Your task to perform on an android device: Open the calendar app, open the side menu, and click the "Day" option Image 0: 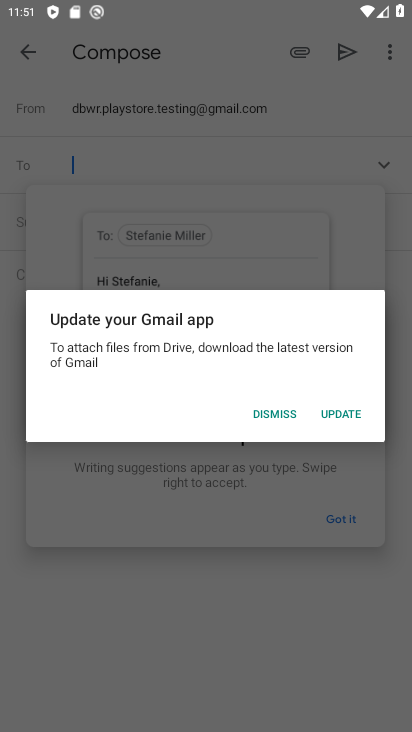
Step 0: press home button
Your task to perform on an android device: Open the calendar app, open the side menu, and click the "Day" option Image 1: 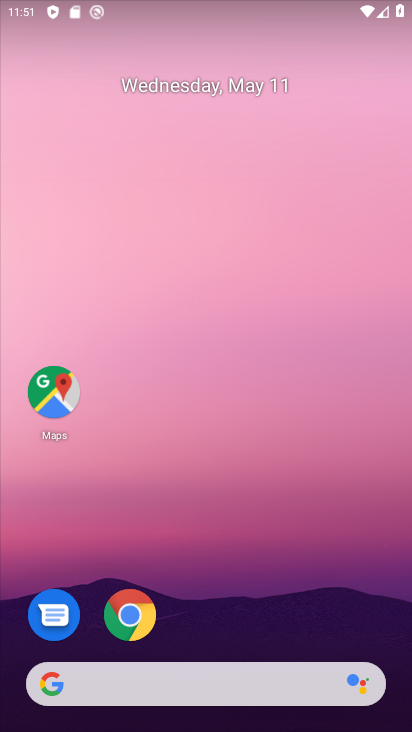
Step 1: drag from (336, 560) to (270, 36)
Your task to perform on an android device: Open the calendar app, open the side menu, and click the "Day" option Image 2: 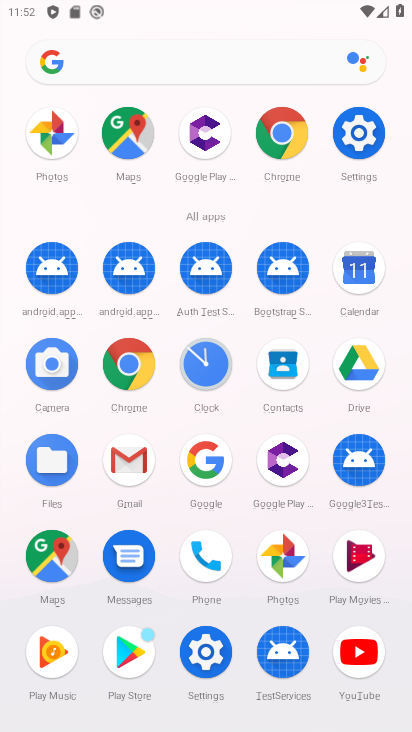
Step 2: click (357, 278)
Your task to perform on an android device: Open the calendar app, open the side menu, and click the "Day" option Image 3: 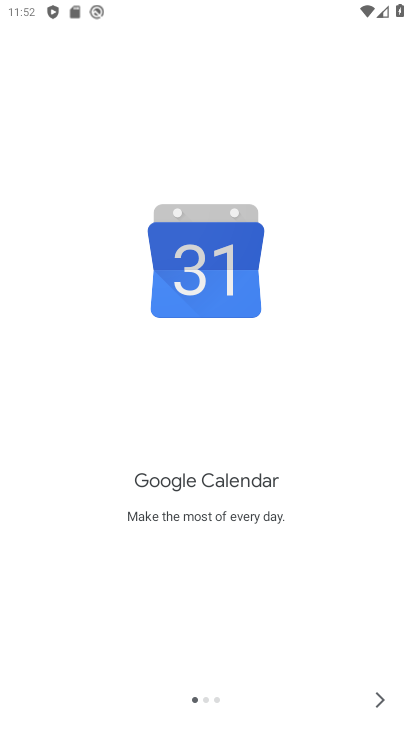
Step 3: click (379, 698)
Your task to perform on an android device: Open the calendar app, open the side menu, and click the "Day" option Image 4: 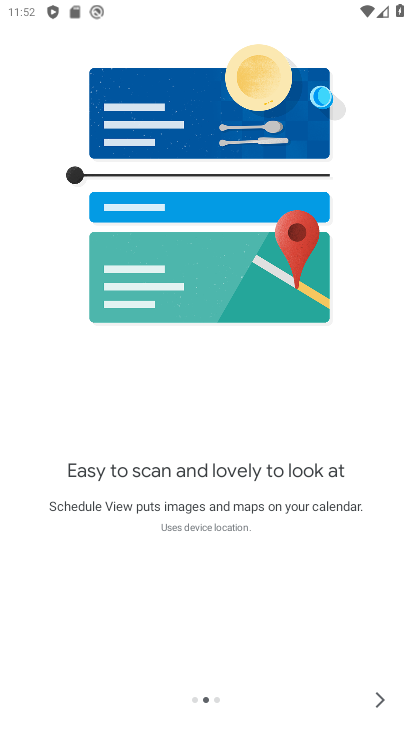
Step 4: click (379, 698)
Your task to perform on an android device: Open the calendar app, open the side menu, and click the "Day" option Image 5: 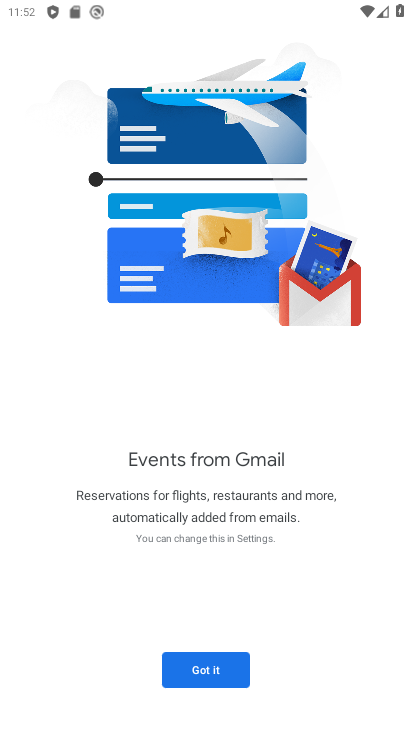
Step 5: click (210, 665)
Your task to perform on an android device: Open the calendar app, open the side menu, and click the "Day" option Image 6: 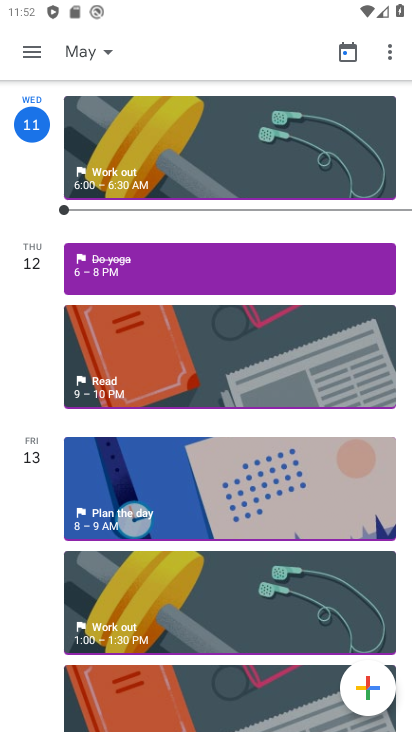
Step 6: click (18, 60)
Your task to perform on an android device: Open the calendar app, open the side menu, and click the "Day" option Image 7: 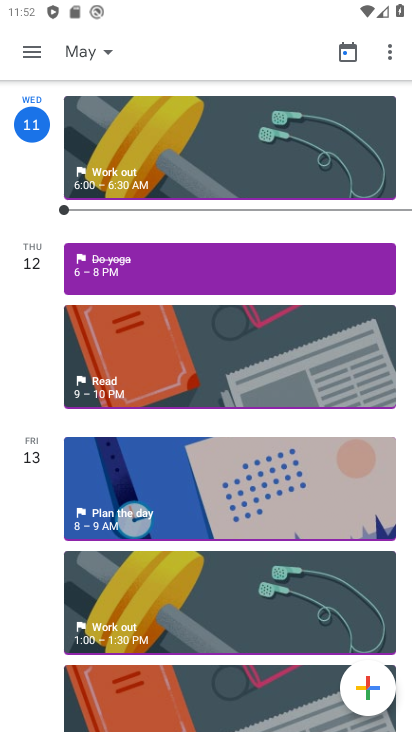
Step 7: click (42, 36)
Your task to perform on an android device: Open the calendar app, open the side menu, and click the "Day" option Image 8: 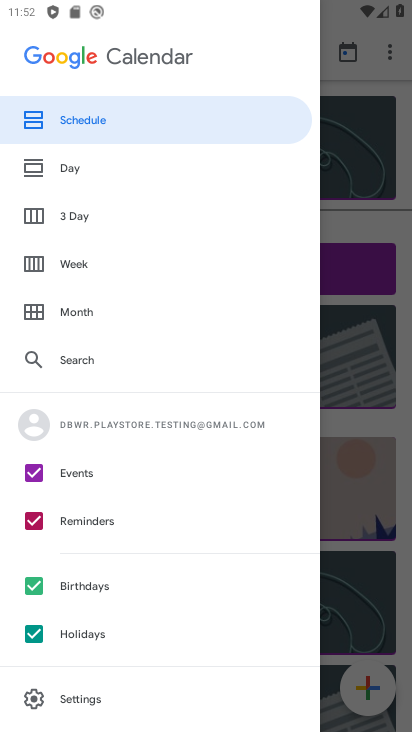
Step 8: click (66, 173)
Your task to perform on an android device: Open the calendar app, open the side menu, and click the "Day" option Image 9: 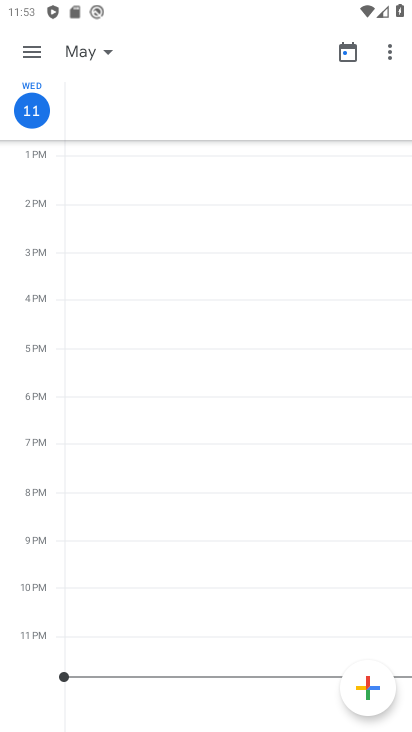
Step 9: task complete